Your task to perform on an android device: add a contact in the contacts app Image 0: 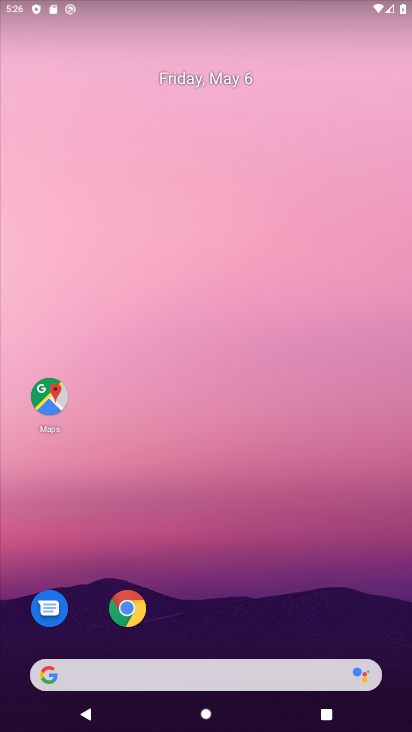
Step 0: drag from (213, 632) to (164, 128)
Your task to perform on an android device: add a contact in the contacts app Image 1: 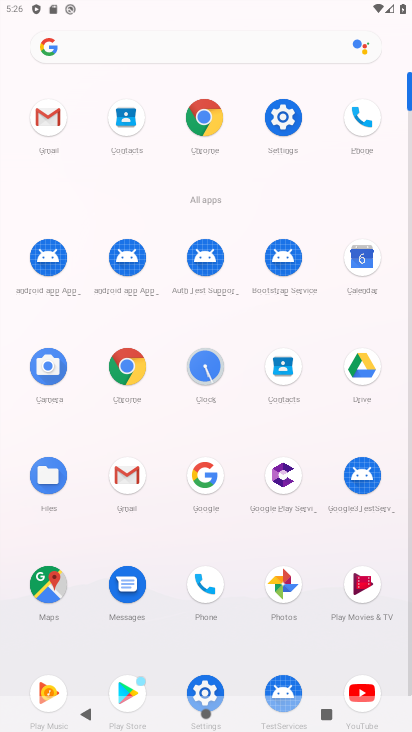
Step 1: click (285, 374)
Your task to perform on an android device: add a contact in the contacts app Image 2: 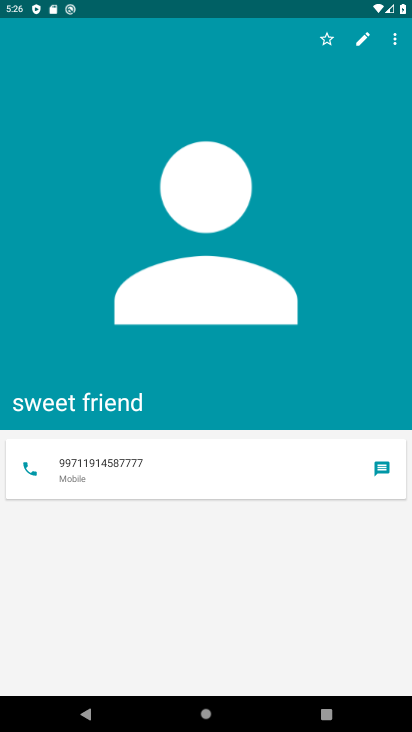
Step 2: press back button
Your task to perform on an android device: add a contact in the contacts app Image 3: 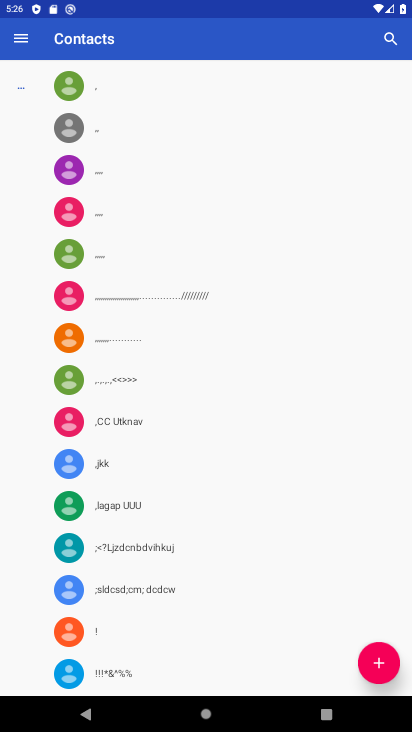
Step 3: click (370, 662)
Your task to perform on an android device: add a contact in the contacts app Image 4: 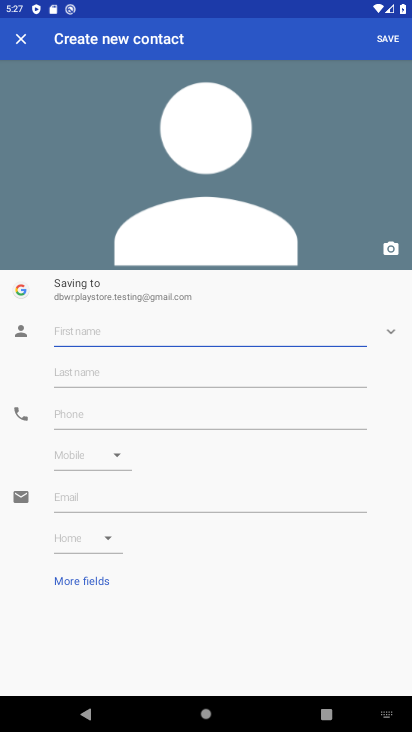
Step 4: type "shikha"
Your task to perform on an android device: add a contact in the contacts app Image 5: 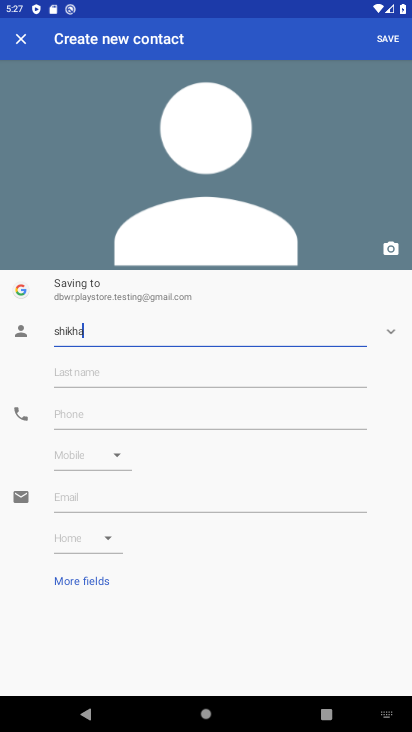
Step 5: click (179, 419)
Your task to perform on an android device: add a contact in the contacts app Image 6: 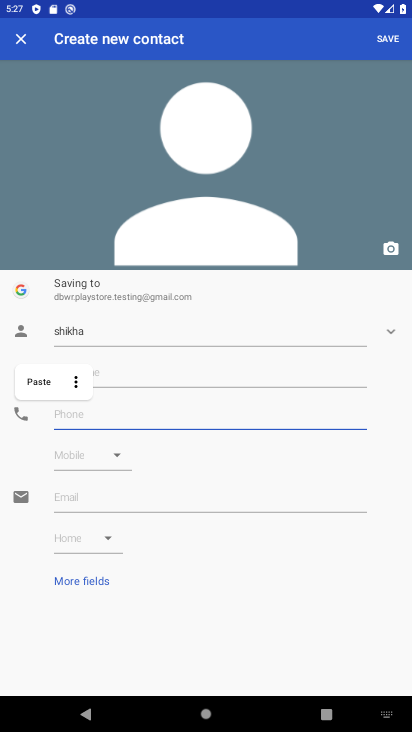
Step 6: type "998804394489"
Your task to perform on an android device: add a contact in the contacts app Image 7: 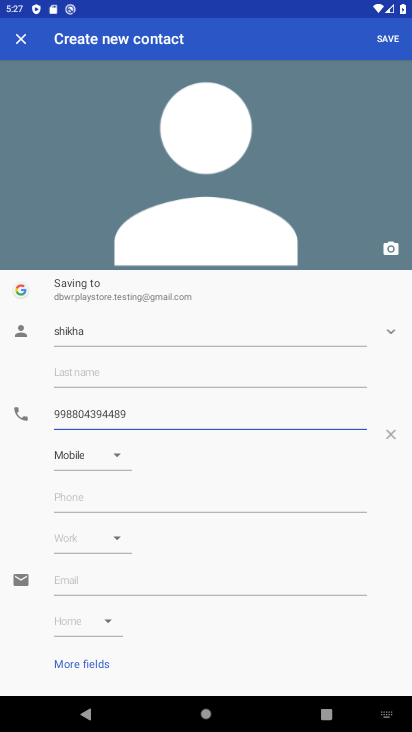
Step 7: click (391, 33)
Your task to perform on an android device: add a contact in the contacts app Image 8: 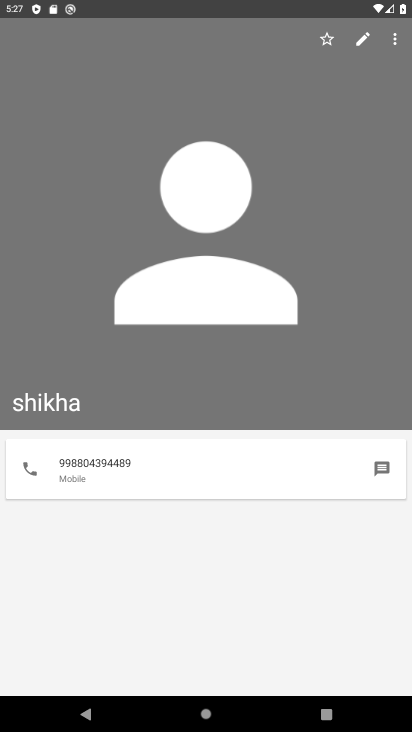
Step 8: task complete